Your task to perform on an android device: turn off data saver in the chrome app Image 0: 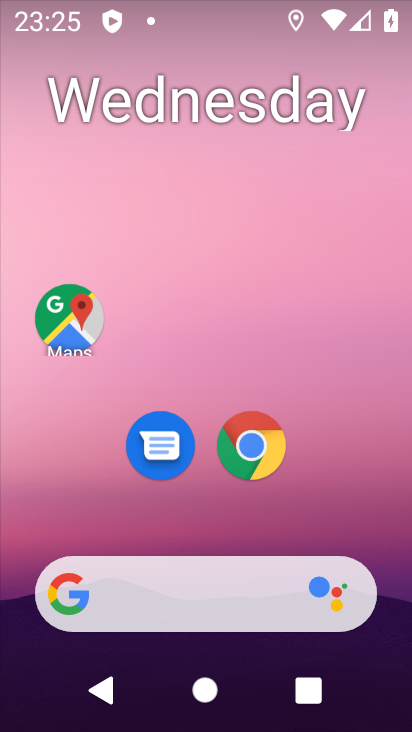
Step 0: click (260, 464)
Your task to perform on an android device: turn off data saver in the chrome app Image 1: 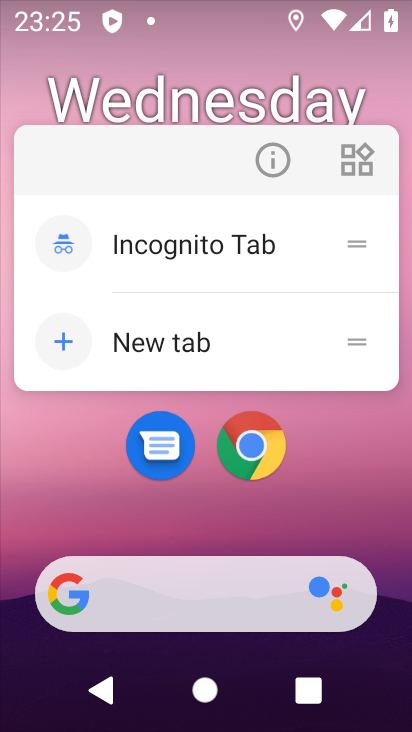
Step 1: click (253, 436)
Your task to perform on an android device: turn off data saver in the chrome app Image 2: 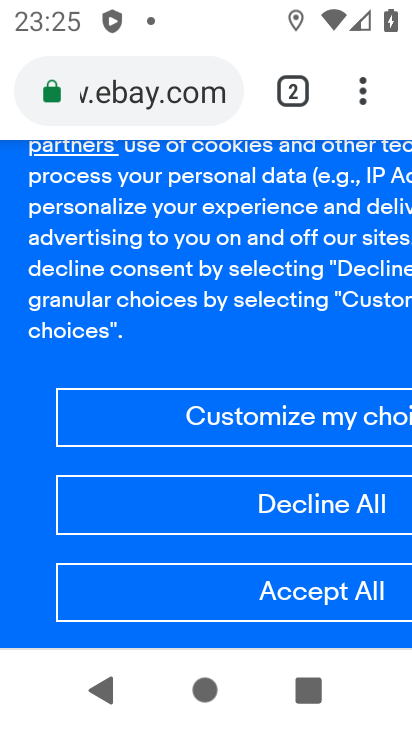
Step 2: drag from (357, 80) to (146, 467)
Your task to perform on an android device: turn off data saver in the chrome app Image 3: 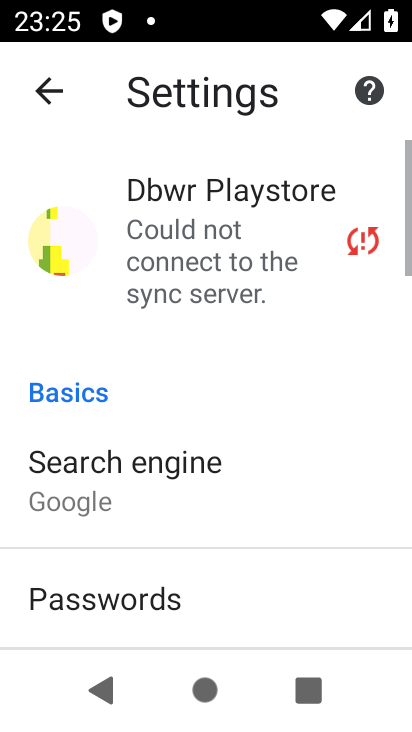
Step 3: drag from (181, 559) to (315, 102)
Your task to perform on an android device: turn off data saver in the chrome app Image 4: 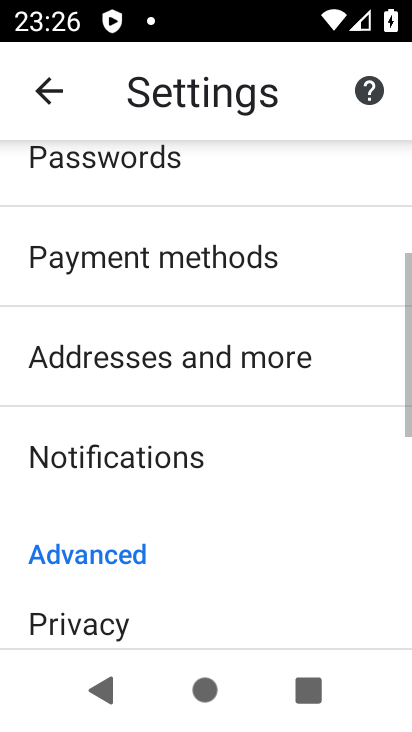
Step 4: drag from (204, 583) to (299, 93)
Your task to perform on an android device: turn off data saver in the chrome app Image 5: 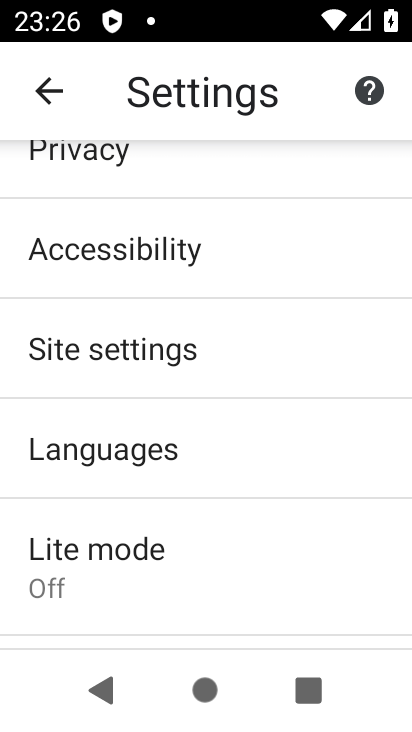
Step 5: click (137, 571)
Your task to perform on an android device: turn off data saver in the chrome app Image 6: 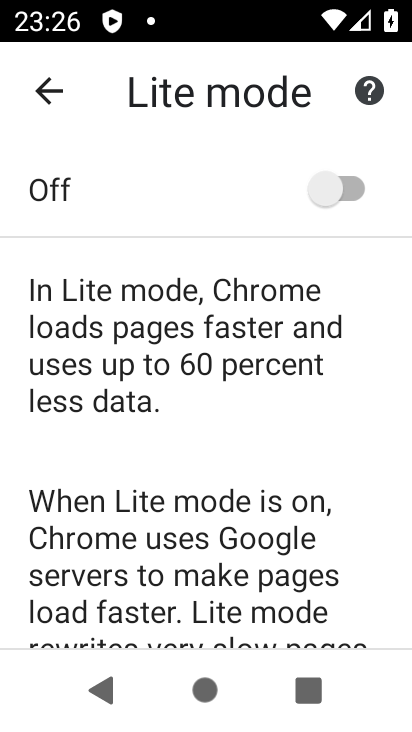
Step 6: task complete